Your task to perform on an android device: move a message to another label in the gmail app Image 0: 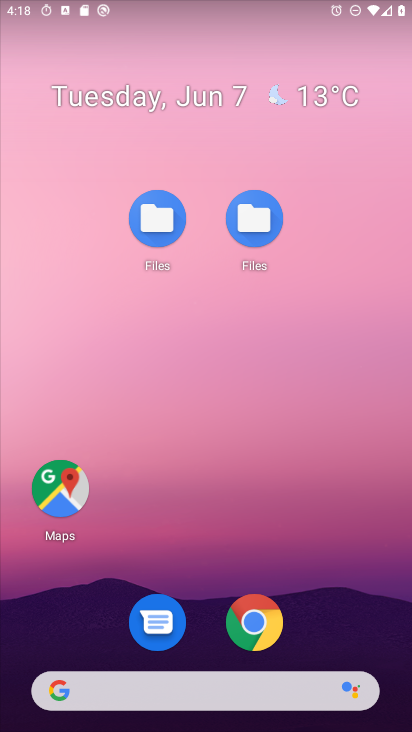
Step 0: drag from (338, 511) to (368, 58)
Your task to perform on an android device: move a message to another label in the gmail app Image 1: 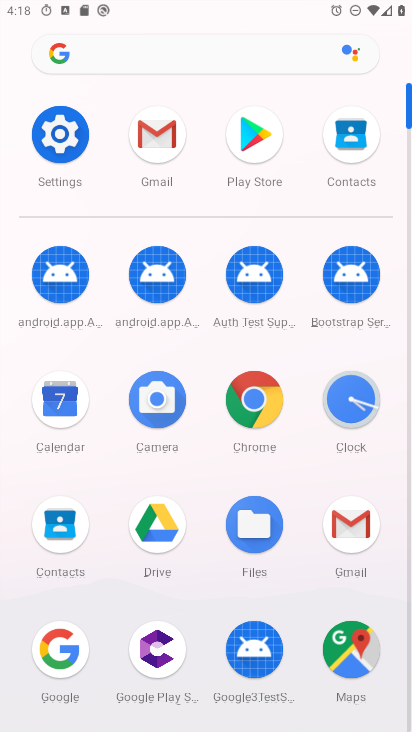
Step 1: click (151, 143)
Your task to perform on an android device: move a message to another label in the gmail app Image 2: 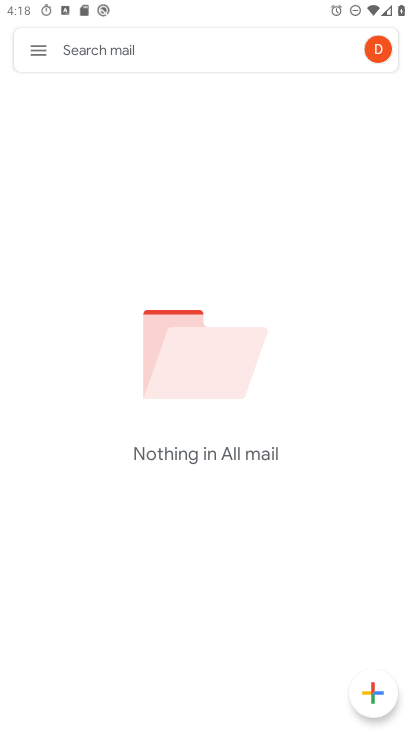
Step 2: click (37, 45)
Your task to perform on an android device: move a message to another label in the gmail app Image 3: 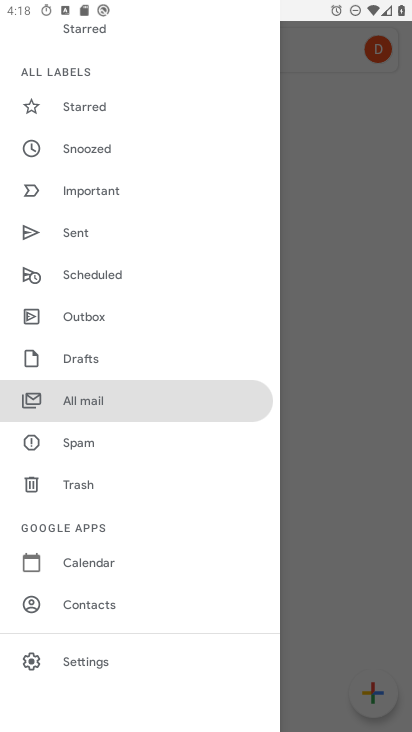
Step 3: click (146, 391)
Your task to perform on an android device: move a message to another label in the gmail app Image 4: 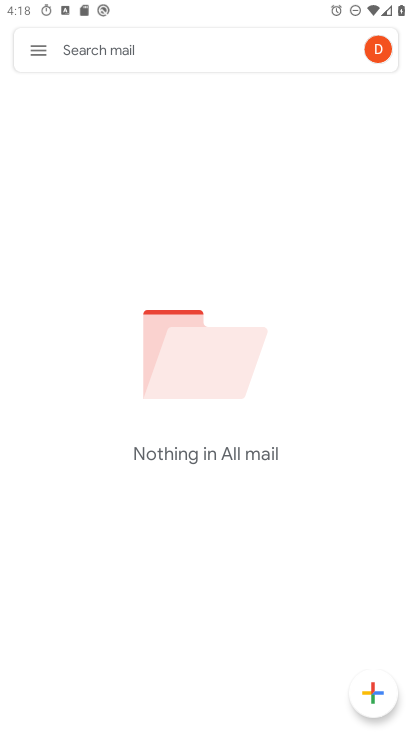
Step 4: task complete